Your task to perform on an android device: What's the weather today? Image 0: 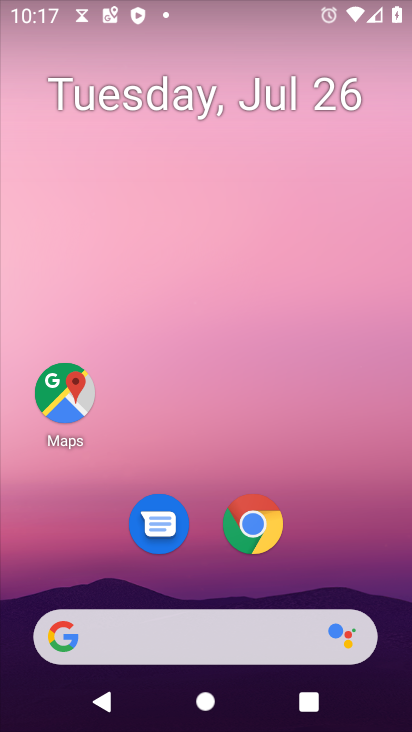
Step 0: press home button
Your task to perform on an android device: What's the weather today? Image 1: 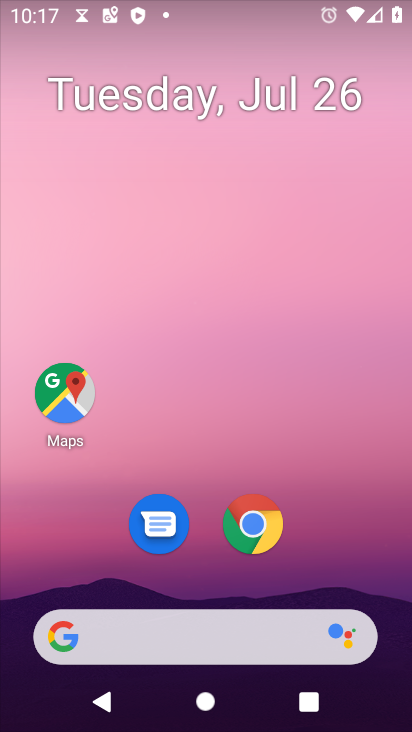
Step 1: click (136, 637)
Your task to perform on an android device: What's the weather today? Image 2: 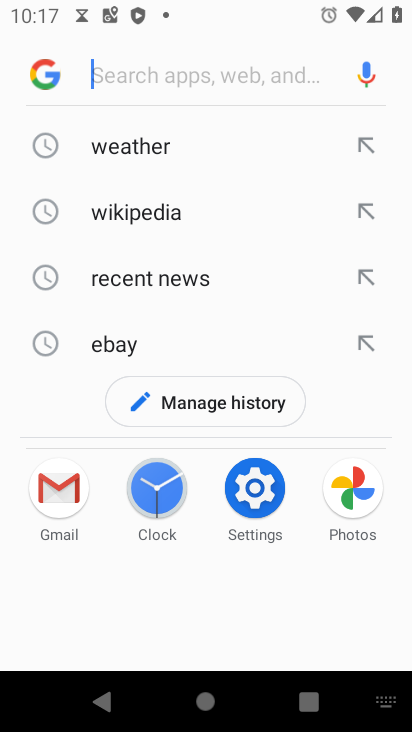
Step 2: click (128, 146)
Your task to perform on an android device: What's the weather today? Image 3: 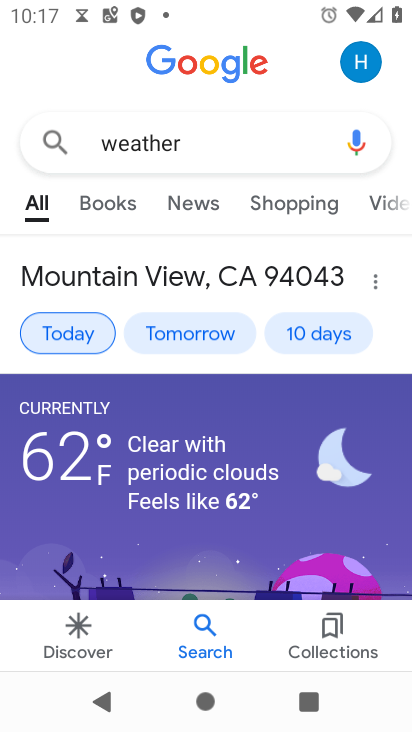
Step 3: task complete